Your task to perform on an android device: check google app version Image 0: 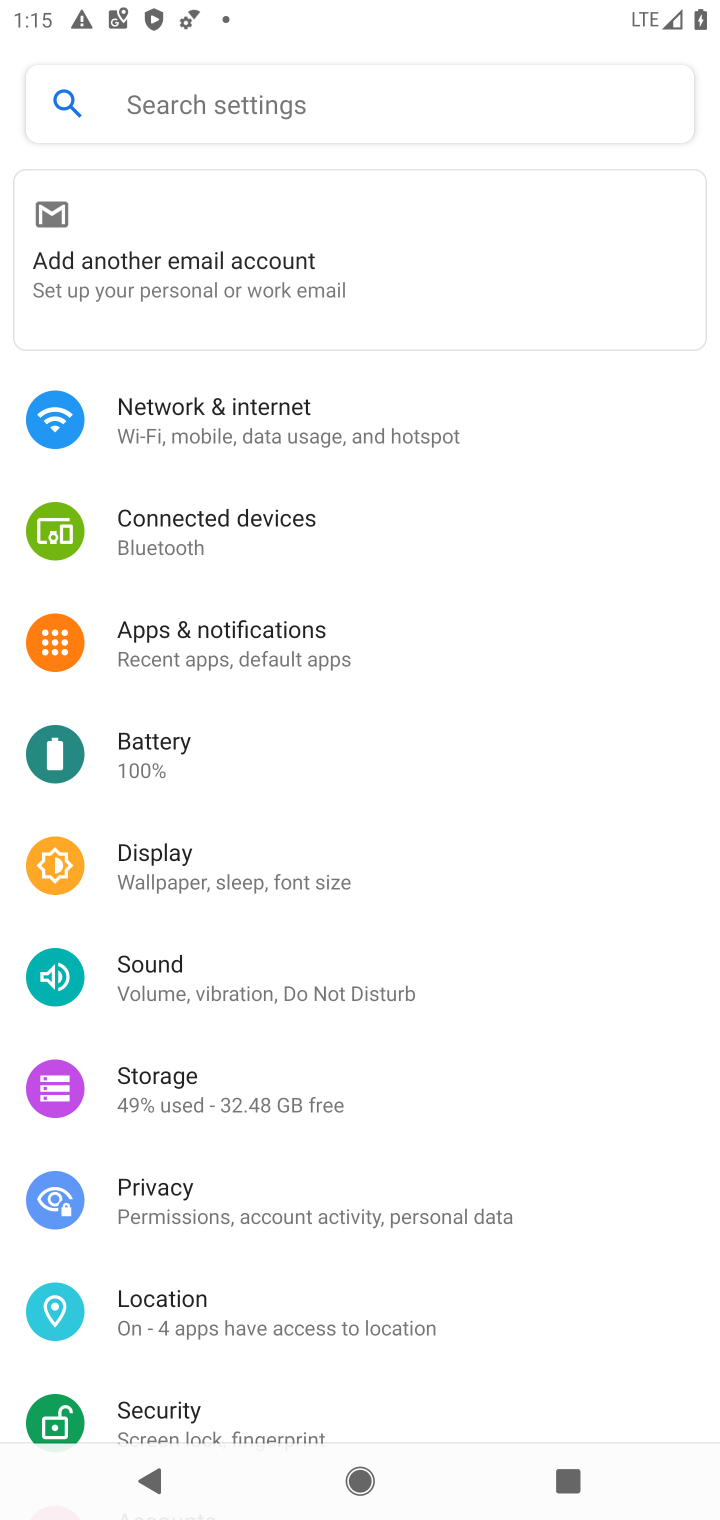
Step 0: press home button
Your task to perform on an android device: check google app version Image 1: 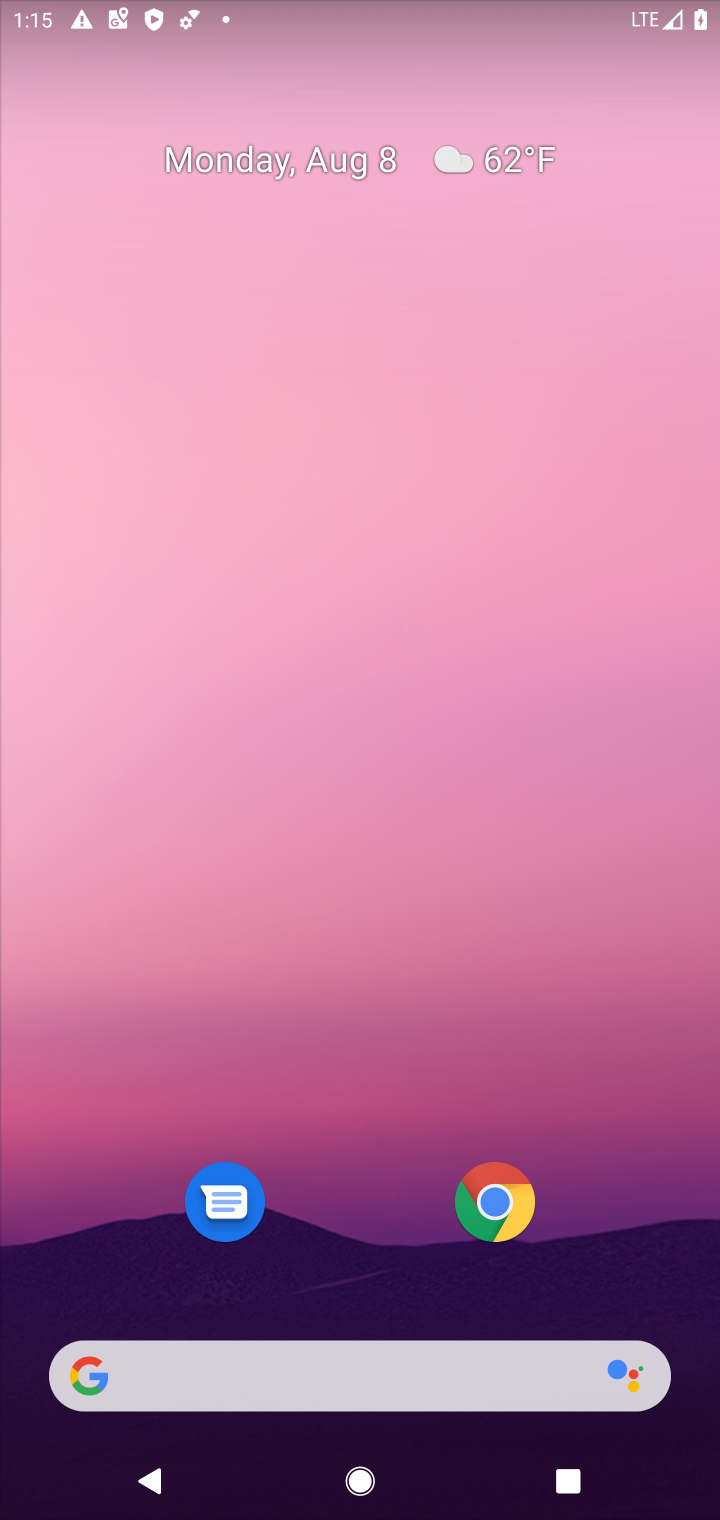
Step 1: click (363, 1253)
Your task to perform on an android device: check google app version Image 2: 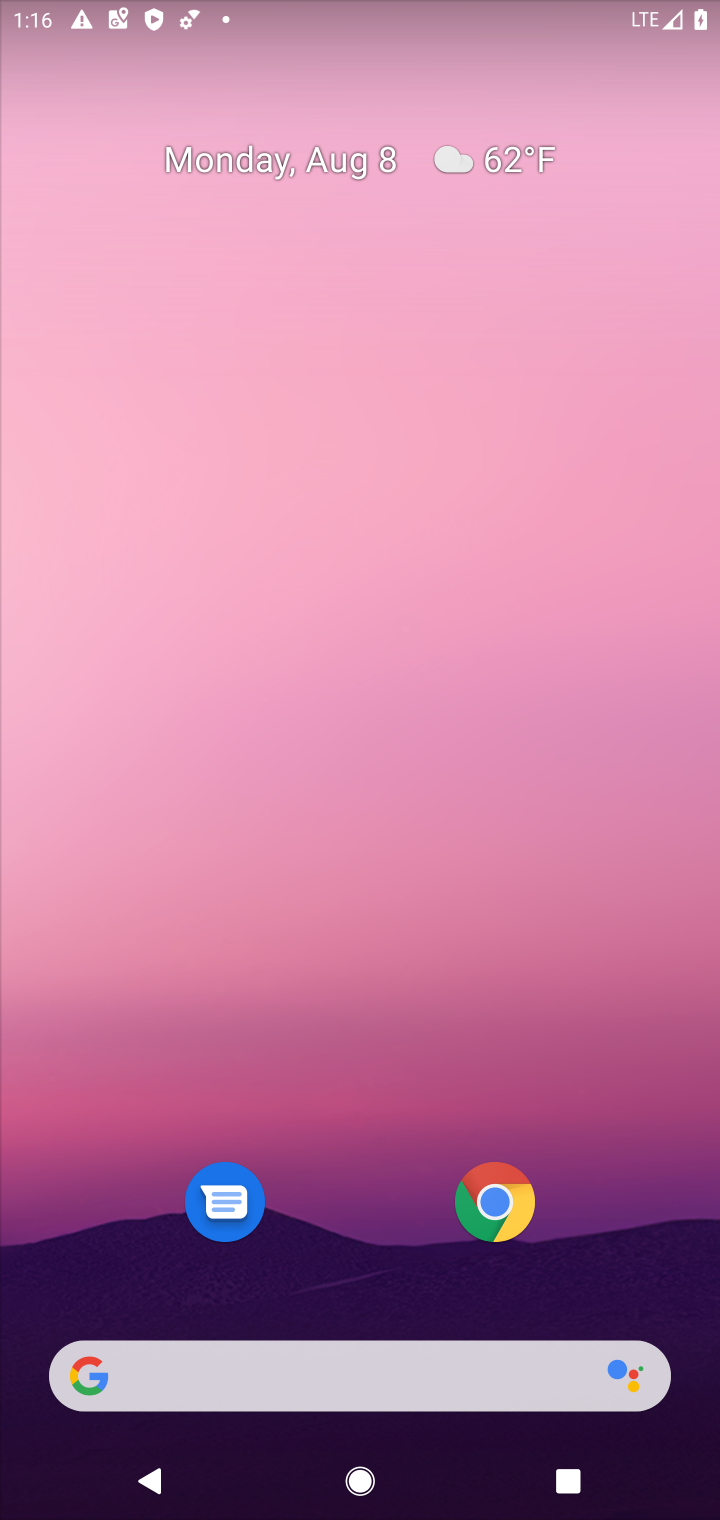
Step 2: click (97, 1383)
Your task to perform on an android device: check google app version Image 3: 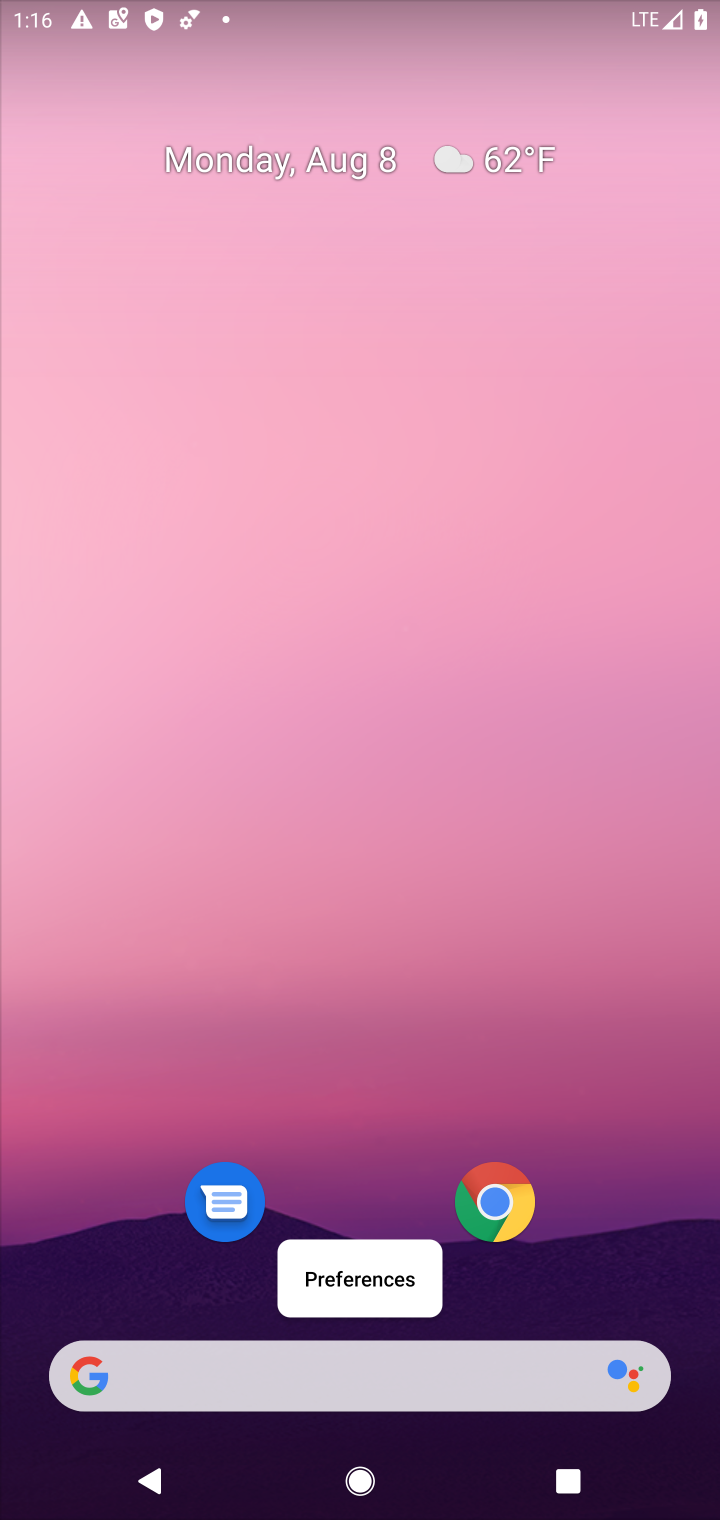
Step 3: click (87, 1383)
Your task to perform on an android device: check google app version Image 4: 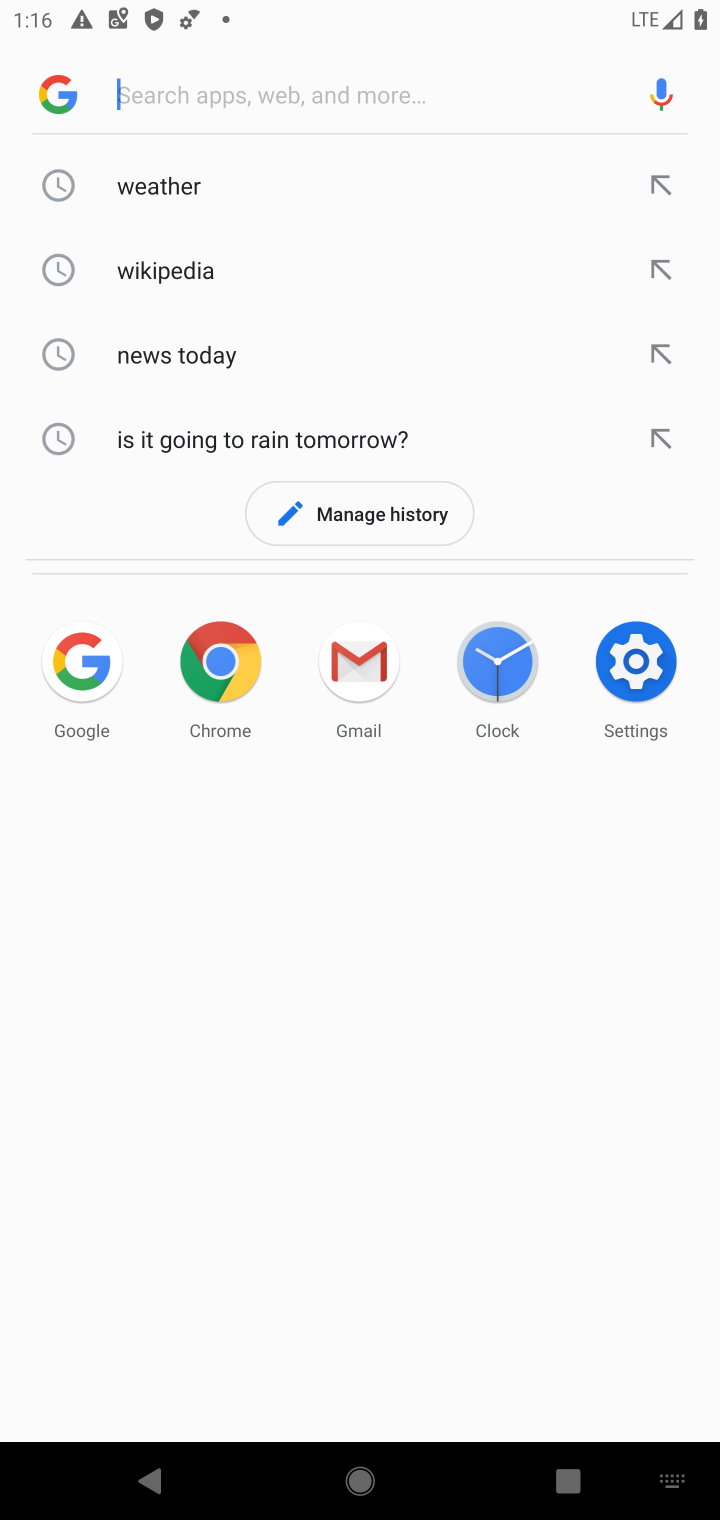
Step 4: click (55, 102)
Your task to perform on an android device: check google app version Image 5: 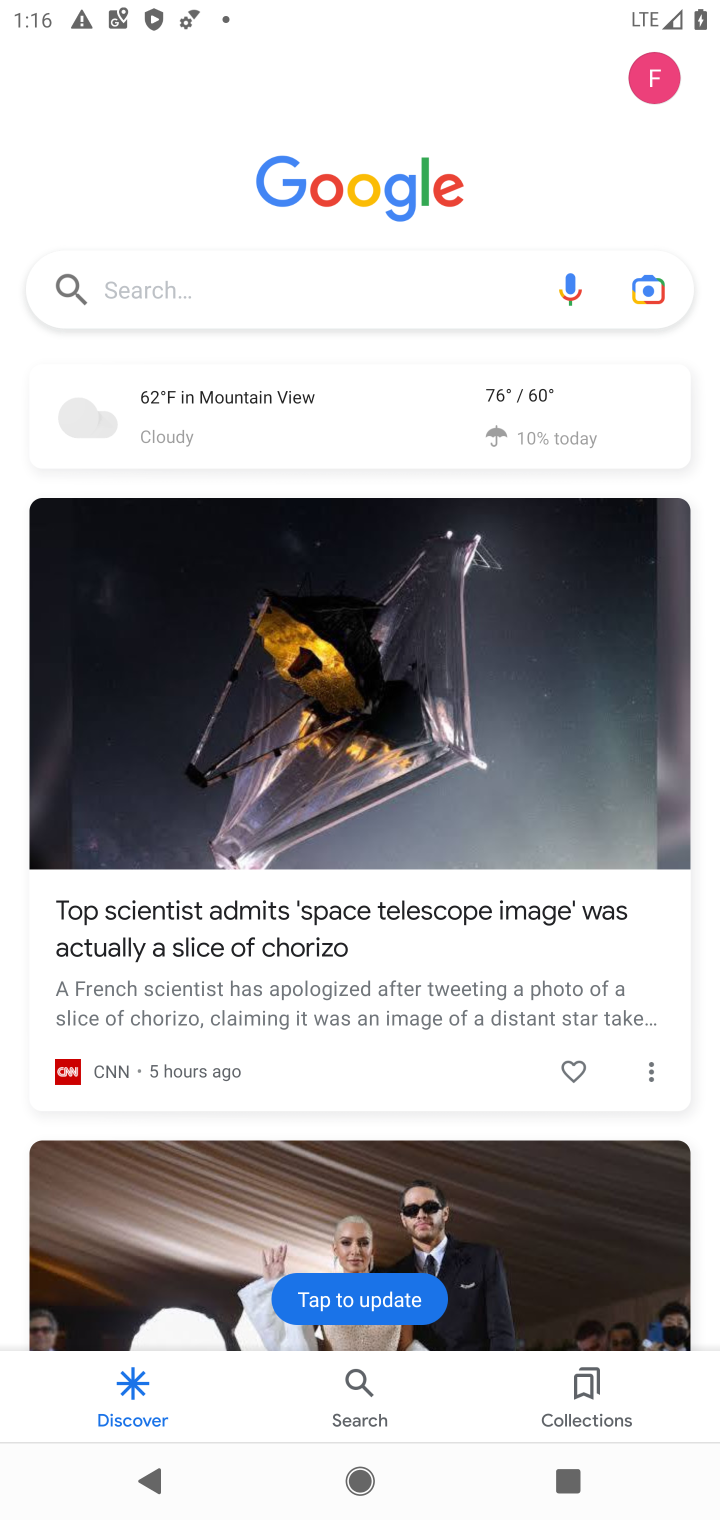
Step 5: click (658, 80)
Your task to perform on an android device: check google app version Image 6: 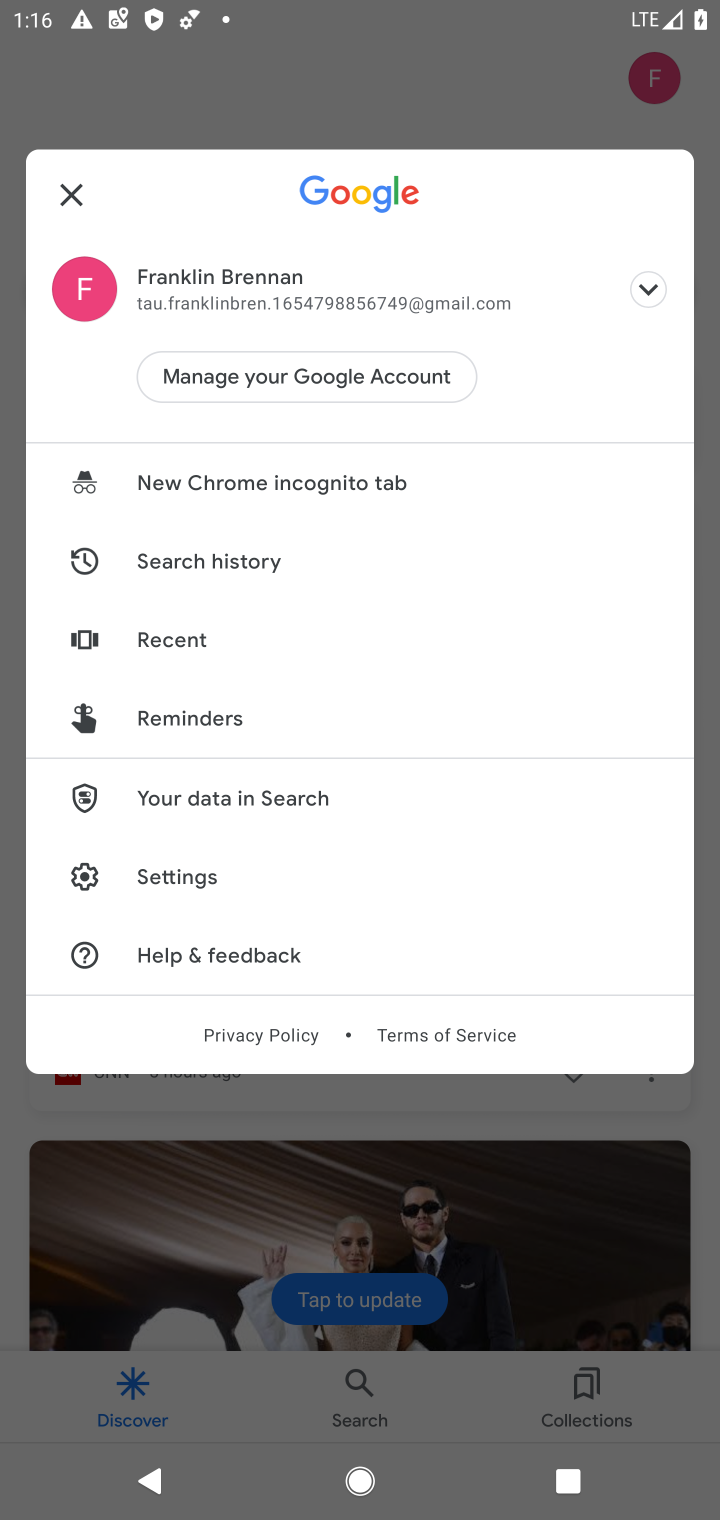
Step 6: click (171, 866)
Your task to perform on an android device: check google app version Image 7: 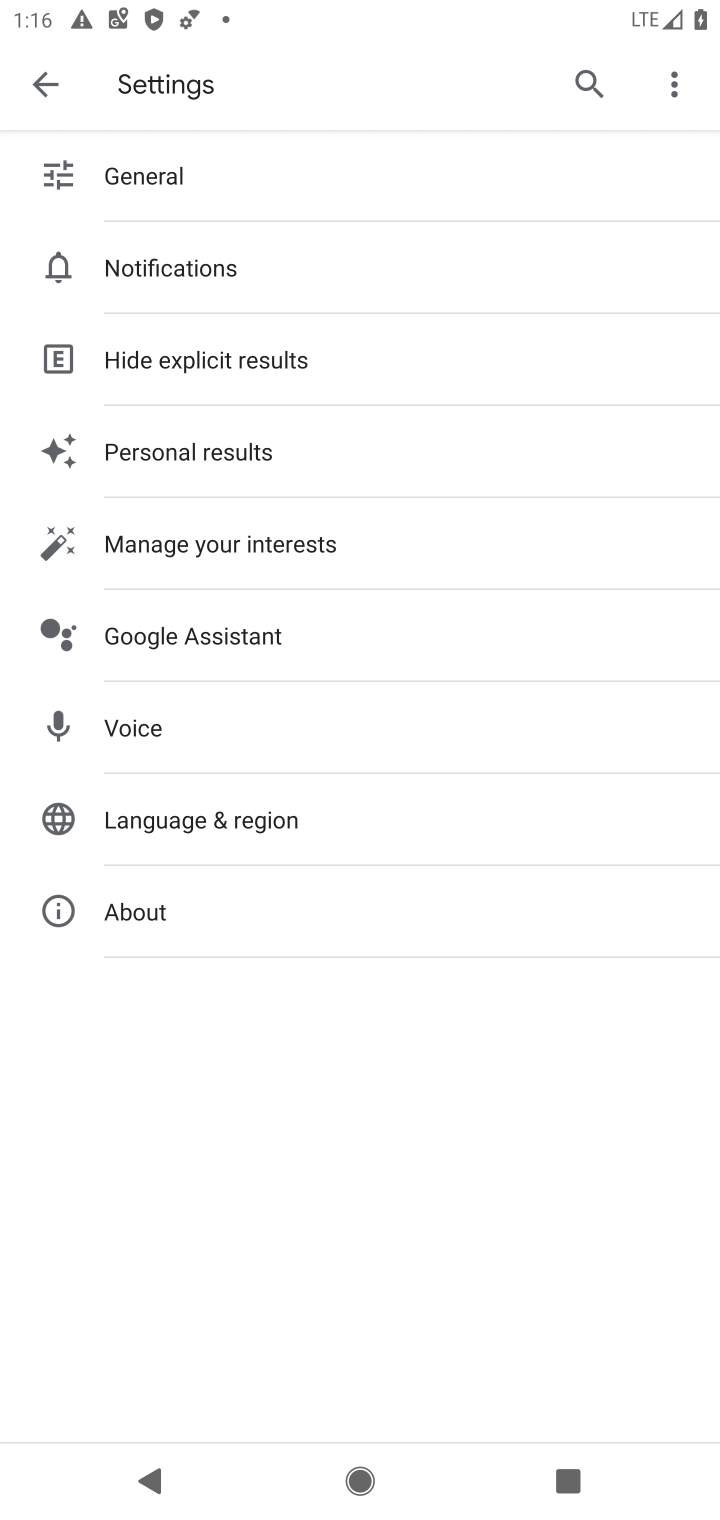
Step 7: click (130, 898)
Your task to perform on an android device: check google app version Image 8: 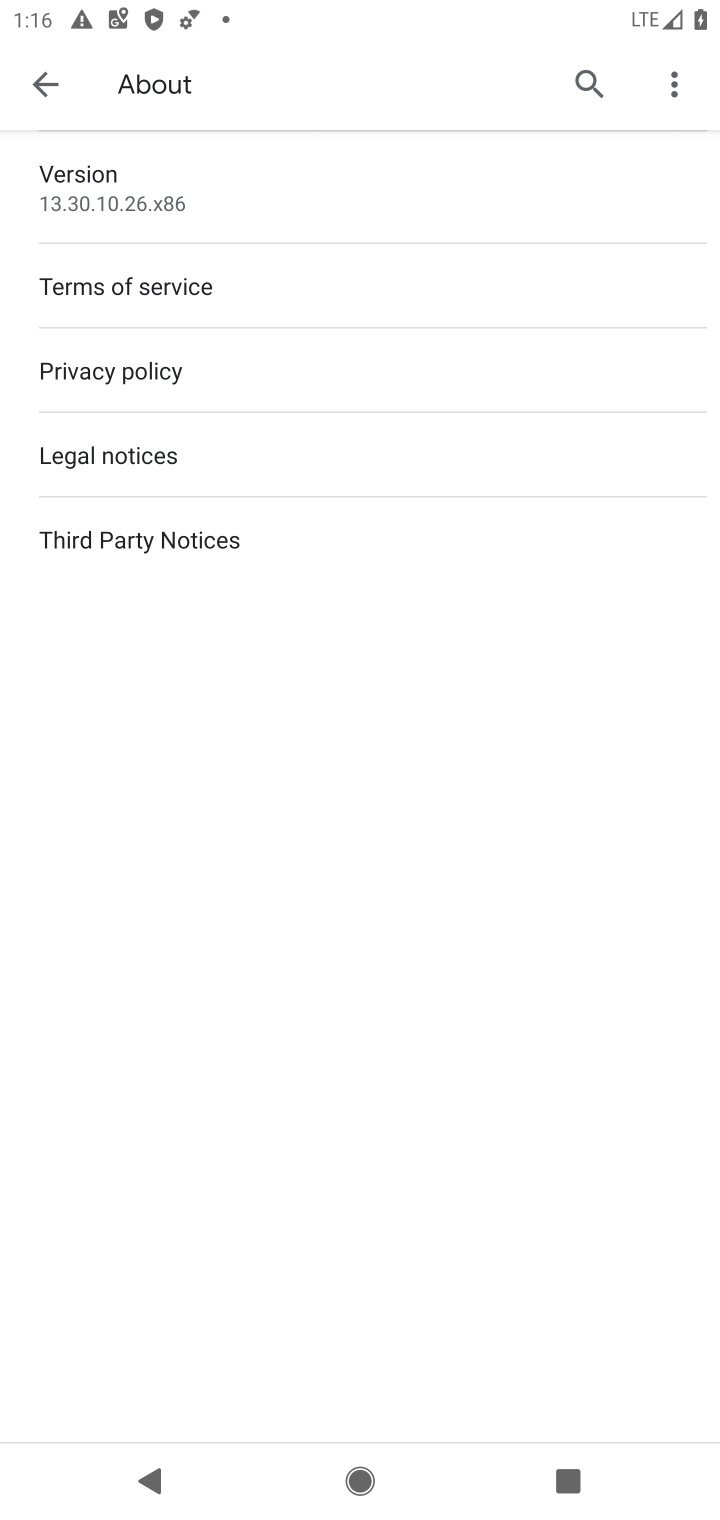
Step 8: task complete